Your task to perform on an android device: Go to settings Image 0: 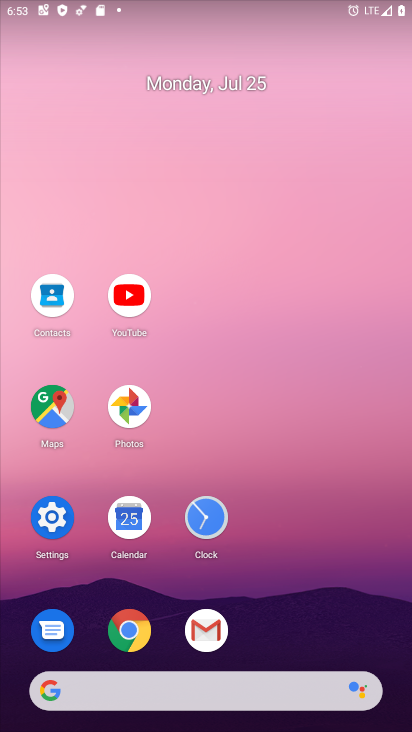
Step 0: click (52, 514)
Your task to perform on an android device: Go to settings Image 1: 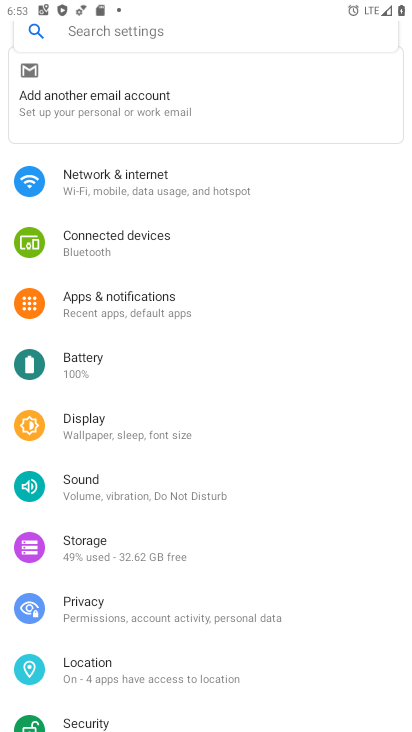
Step 1: task complete